Your task to perform on an android device: Open Google Chrome Image 0: 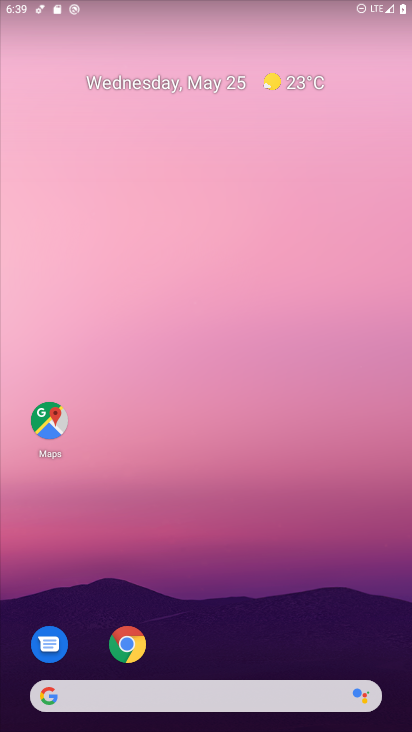
Step 0: drag from (387, 635) to (281, 103)
Your task to perform on an android device: Open Google Chrome Image 1: 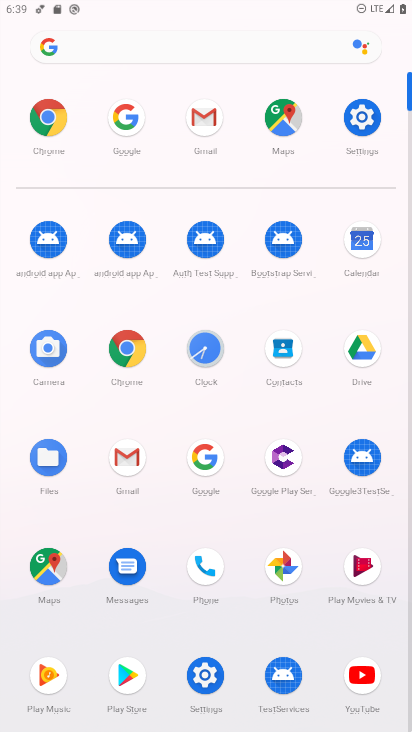
Step 1: click (129, 383)
Your task to perform on an android device: Open Google Chrome Image 2: 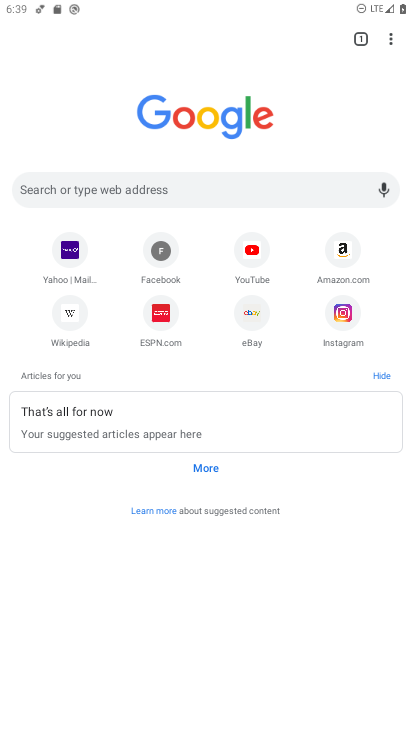
Step 2: task complete